Your task to perform on an android device: turn on translation in the chrome app Image 0: 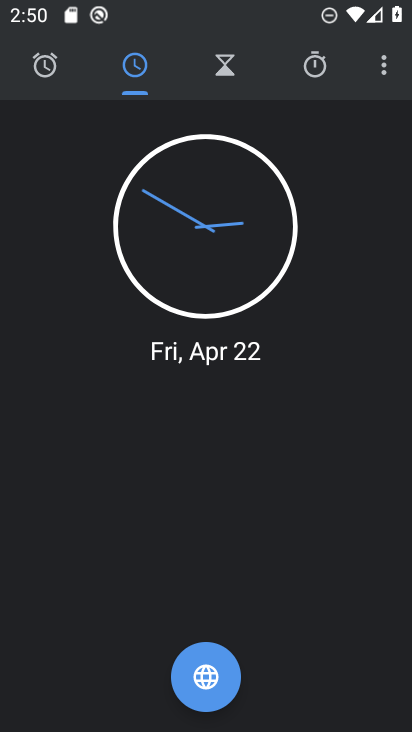
Step 0: press home button
Your task to perform on an android device: turn on translation in the chrome app Image 1: 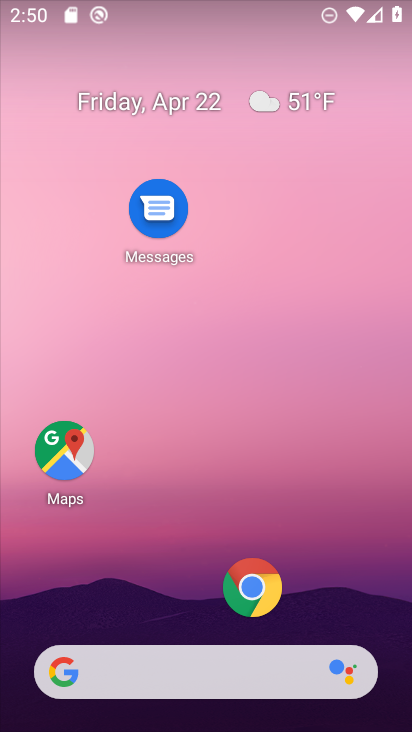
Step 1: click (236, 588)
Your task to perform on an android device: turn on translation in the chrome app Image 2: 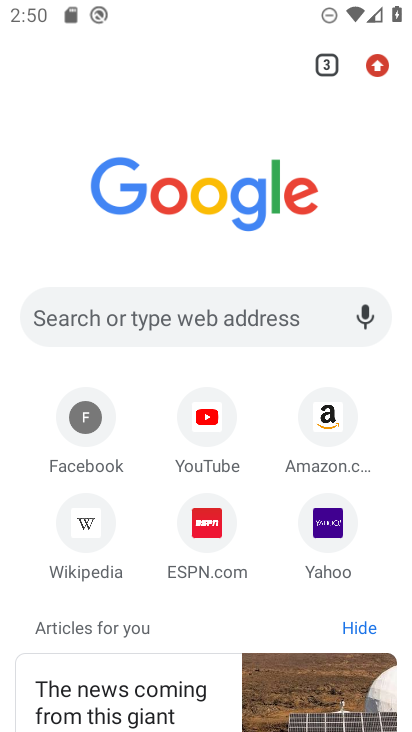
Step 2: drag from (370, 64) to (175, 620)
Your task to perform on an android device: turn on translation in the chrome app Image 3: 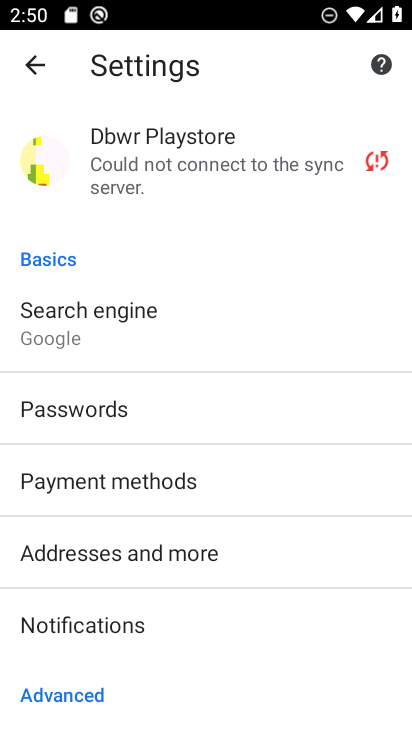
Step 3: drag from (232, 610) to (293, 371)
Your task to perform on an android device: turn on translation in the chrome app Image 4: 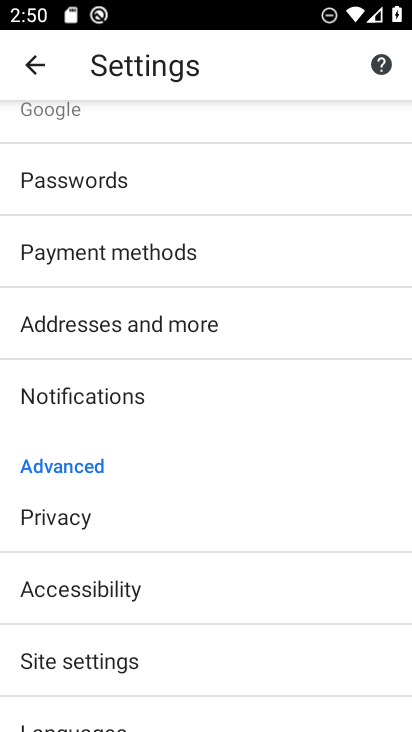
Step 4: drag from (179, 630) to (237, 382)
Your task to perform on an android device: turn on translation in the chrome app Image 5: 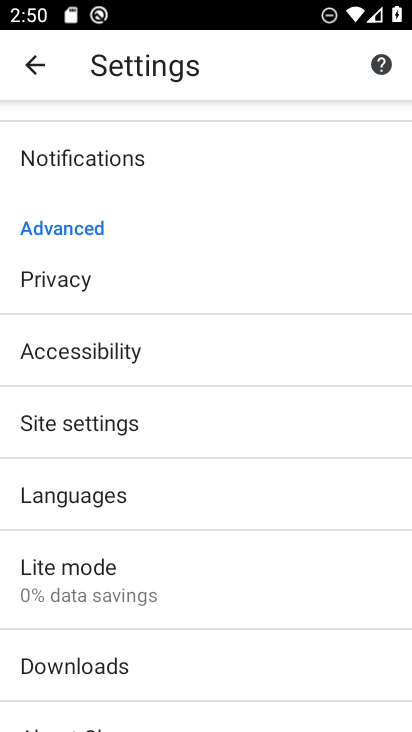
Step 5: click (132, 498)
Your task to perform on an android device: turn on translation in the chrome app Image 6: 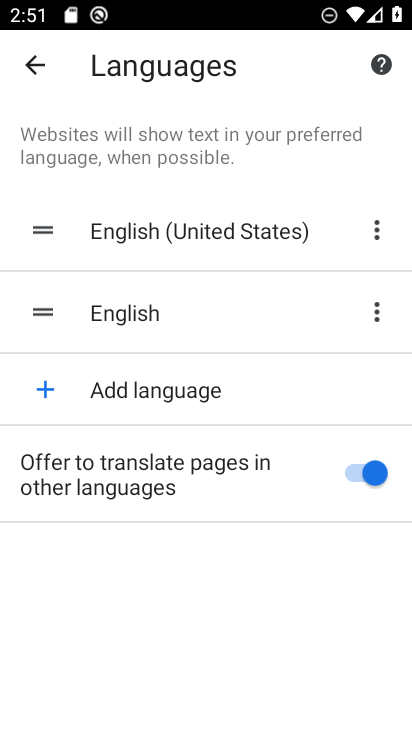
Step 6: task complete